Your task to perform on an android device: change the upload size in google photos Image 0: 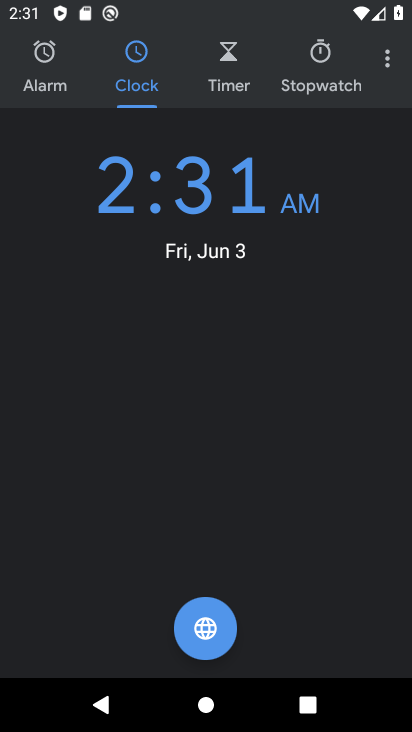
Step 0: press home button
Your task to perform on an android device: change the upload size in google photos Image 1: 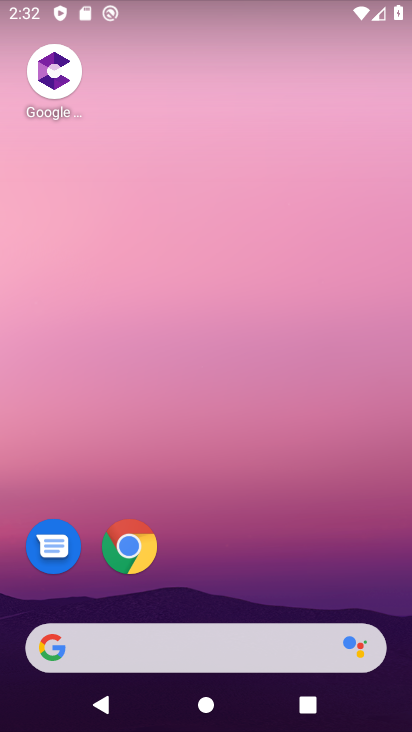
Step 1: drag from (286, 570) to (318, 45)
Your task to perform on an android device: change the upload size in google photos Image 2: 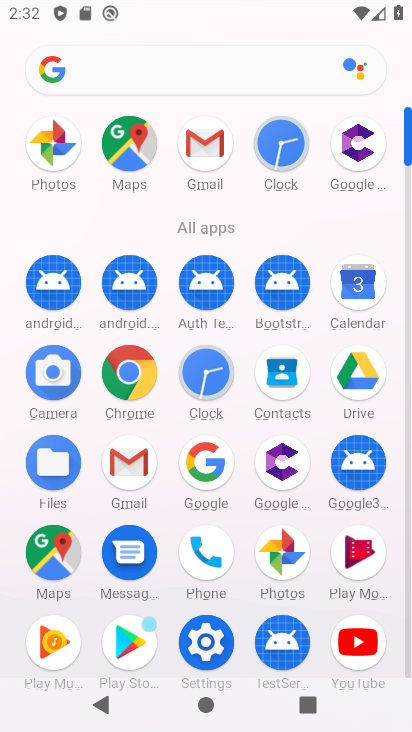
Step 2: click (51, 152)
Your task to perform on an android device: change the upload size in google photos Image 3: 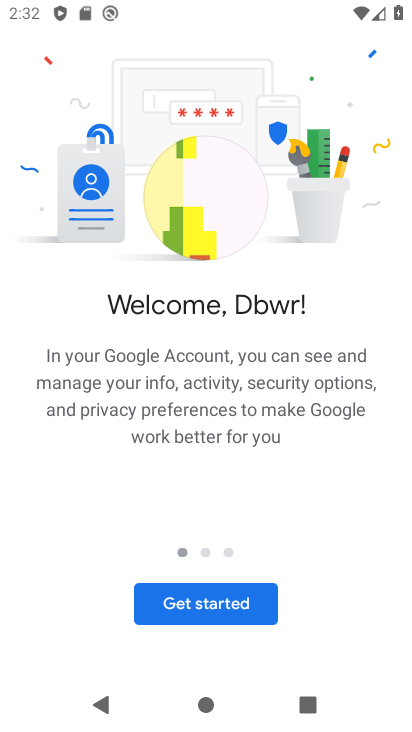
Step 3: click (242, 607)
Your task to perform on an android device: change the upload size in google photos Image 4: 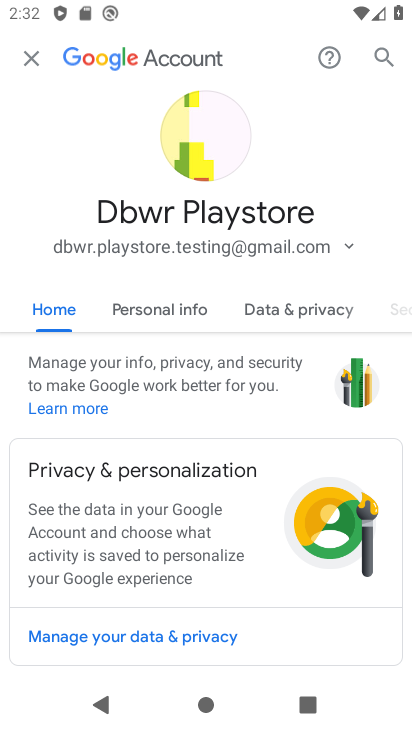
Step 4: click (33, 51)
Your task to perform on an android device: change the upload size in google photos Image 5: 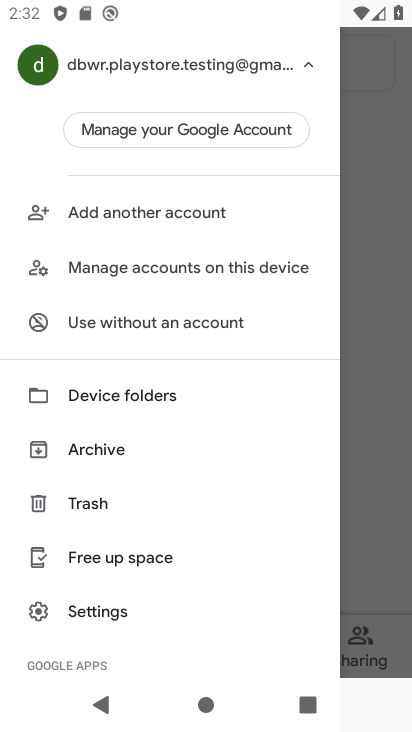
Step 5: click (80, 607)
Your task to perform on an android device: change the upload size in google photos Image 6: 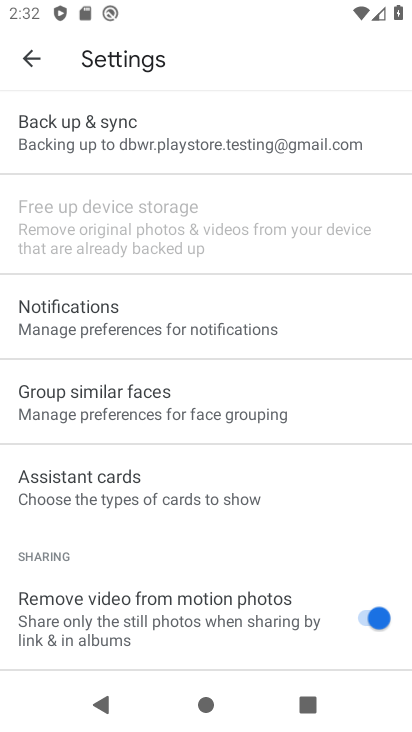
Step 6: click (174, 145)
Your task to perform on an android device: change the upload size in google photos Image 7: 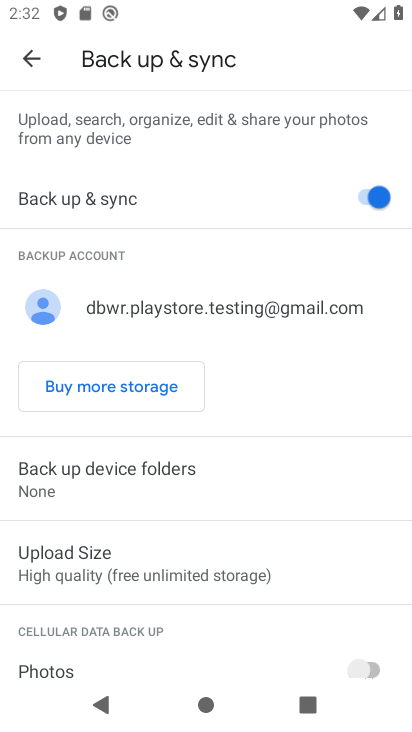
Step 7: click (80, 578)
Your task to perform on an android device: change the upload size in google photos Image 8: 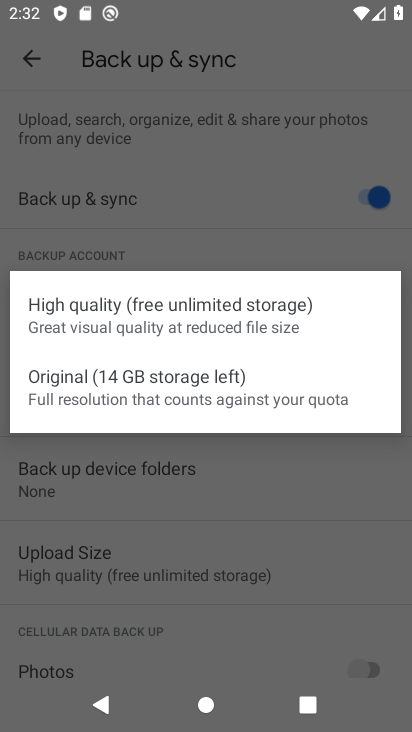
Step 8: click (122, 399)
Your task to perform on an android device: change the upload size in google photos Image 9: 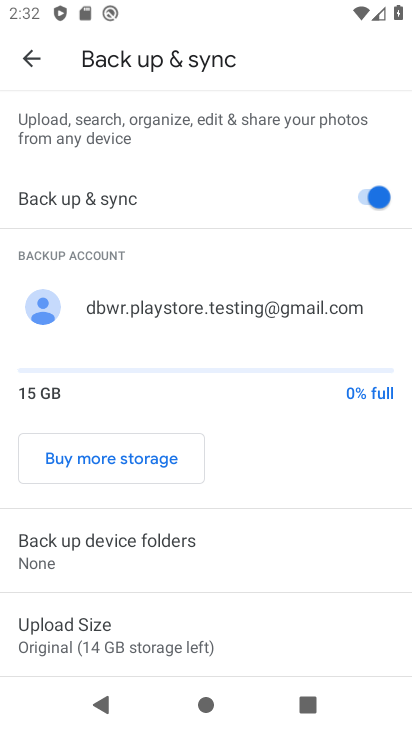
Step 9: task complete